Your task to perform on an android device: turn on priority inbox in the gmail app Image 0: 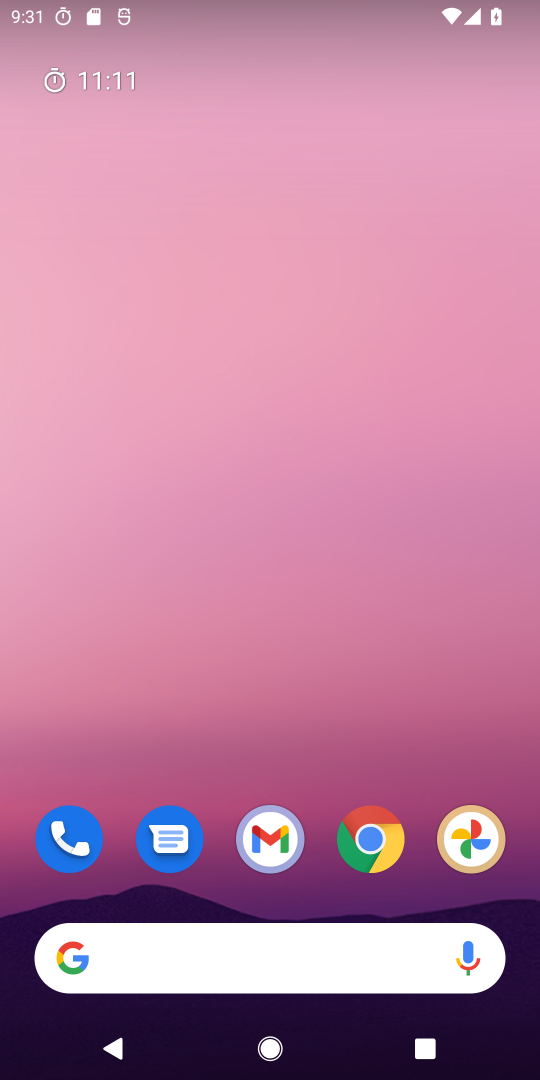
Step 0: click (269, 830)
Your task to perform on an android device: turn on priority inbox in the gmail app Image 1: 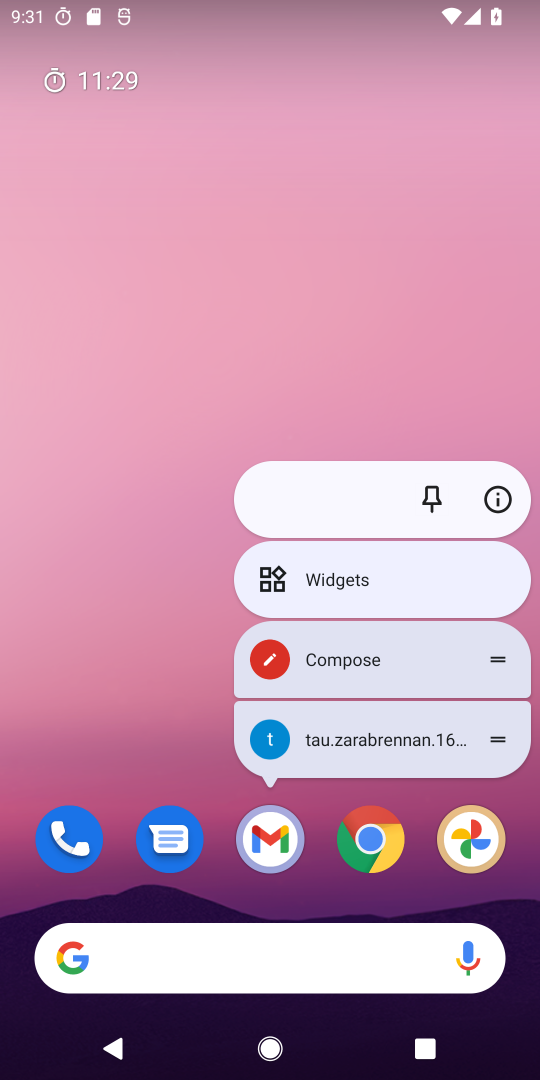
Step 1: click (269, 835)
Your task to perform on an android device: turn on priority inbox in the gmail app Image 2: 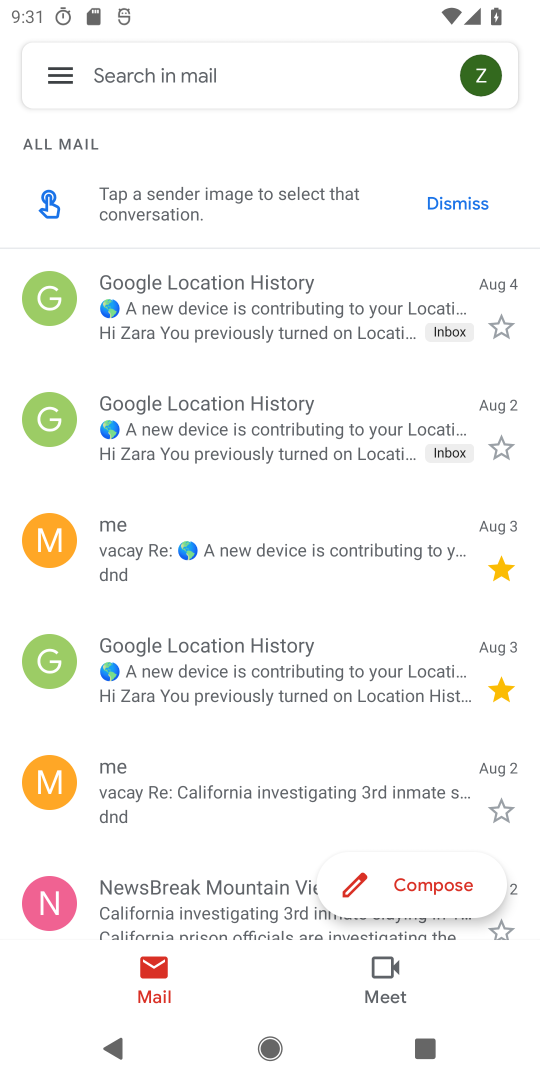
Step 2: click (52, 80)
Your task to perform on an android device: turn on priority inbox in the gmail app Image 3: 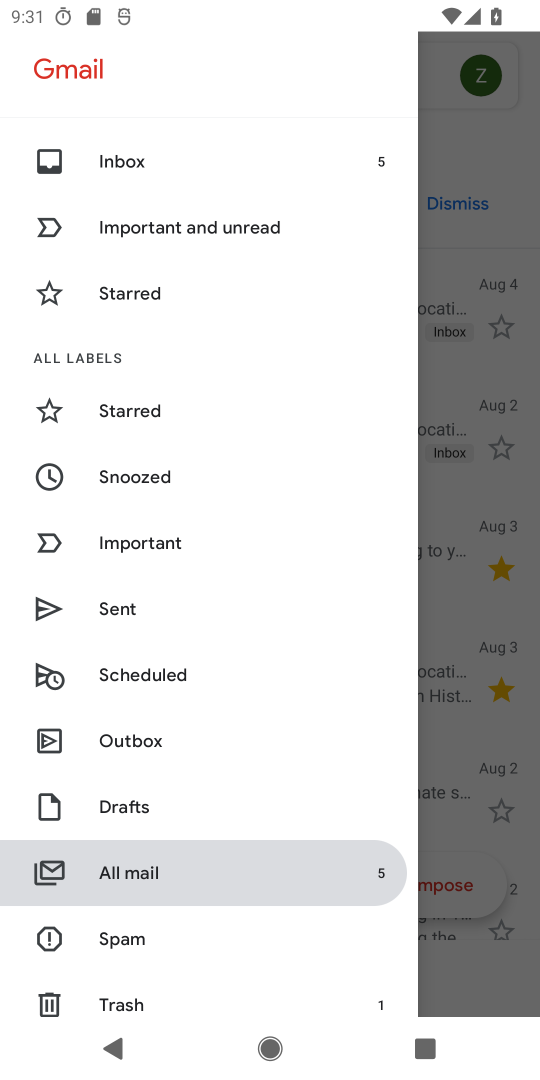
Step 3: drag from (162, 880) to (261, 196)
Your task to perform on an android device: turn on priority inbox in the gmail app Image 4: 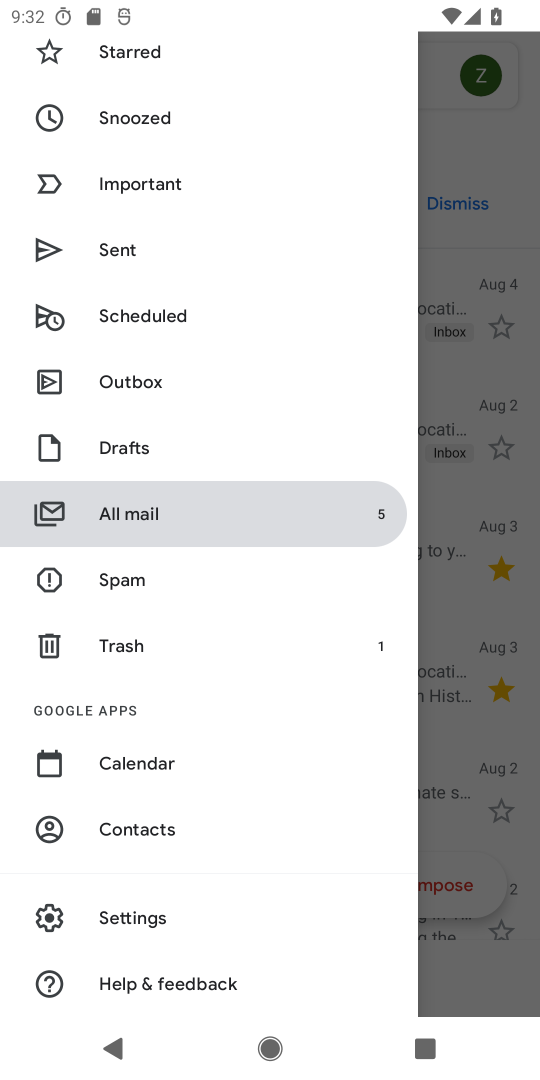
Step 4: click (156, 903)
Your task to perform on an android device: turn on priority inbox in the gmail app Image 5: 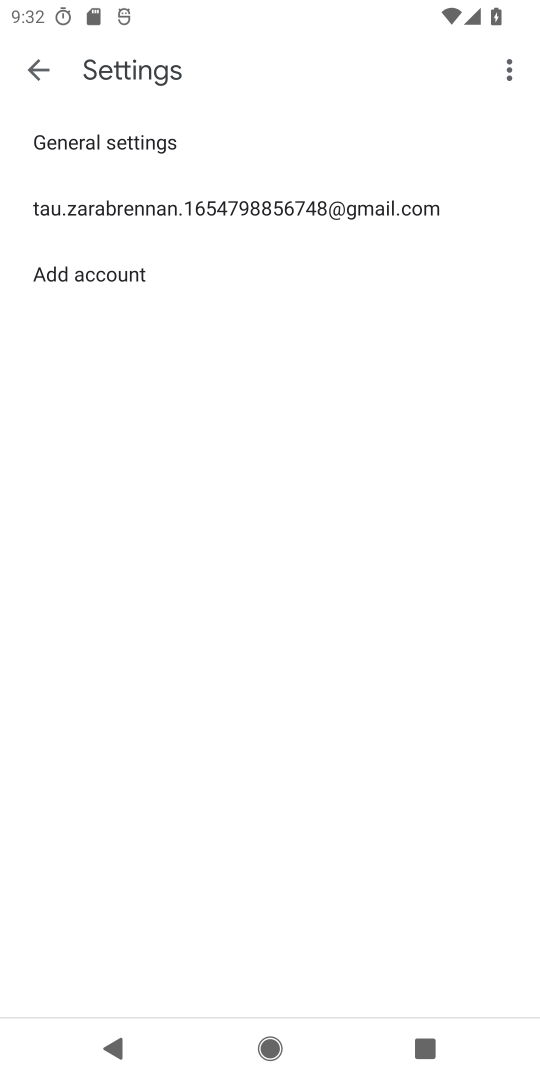
Step 5: click (140, 193)
Your task to perform on an android device: turn on priority inbox in the gmail app Image 6: 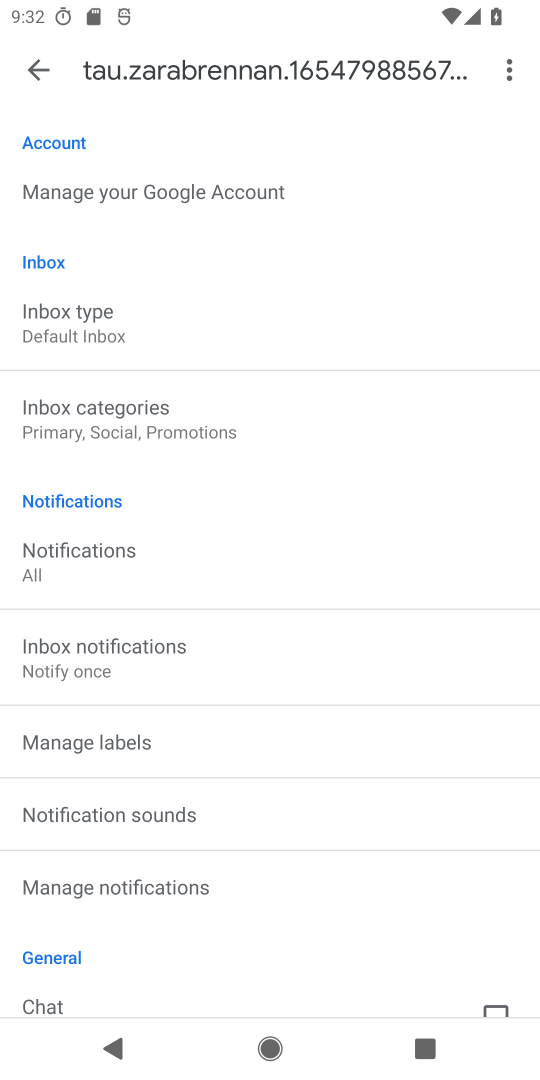
Step 6: click (97, 310)
Your task to perform on an android device: turn on priority inbox in the gmail app Image 7: 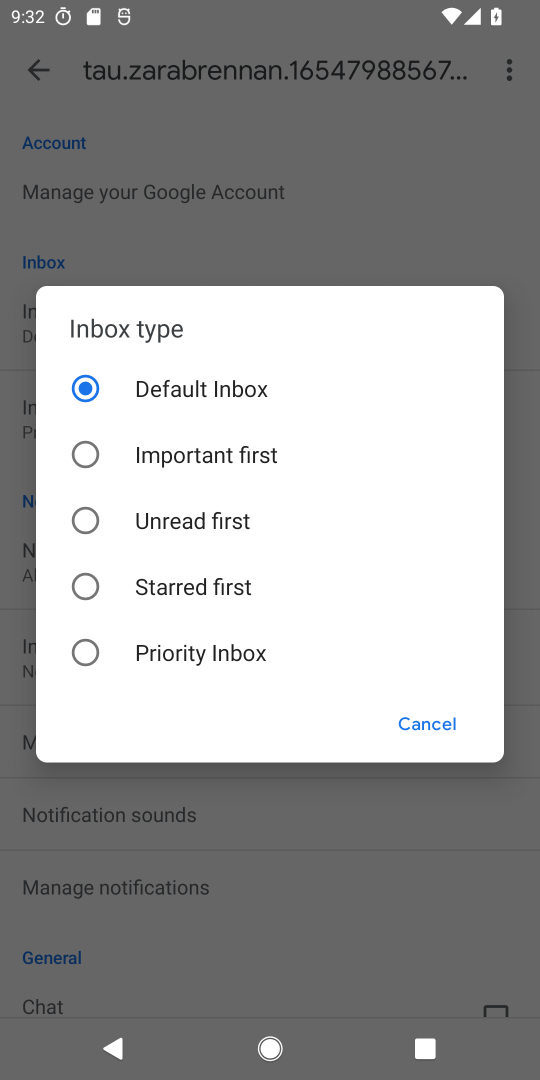
Step 7: click (78, 643)
Your task to perform on an android device: turn on priority inbox in the gmail app Image 8: 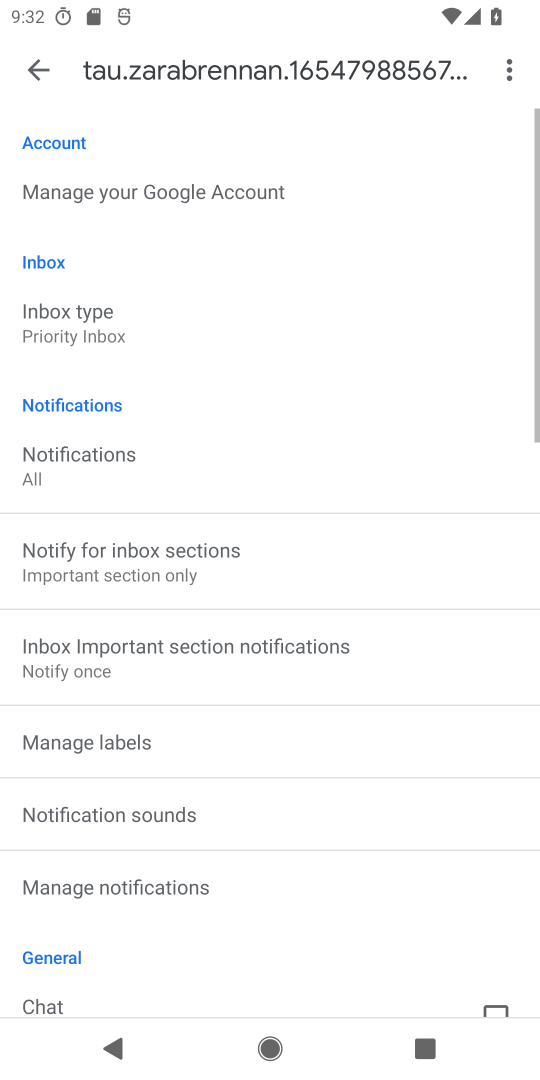
Step 8: task complete